Your task to perform on an android device: Open display settings Image 0: 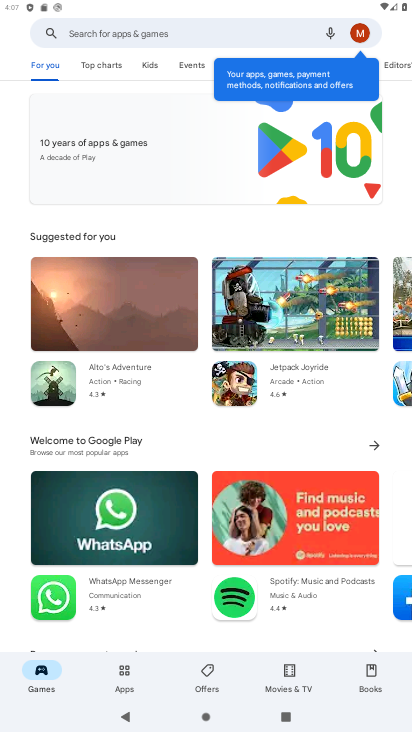
Step 0: press home button
Your task to perform on an android device: Open display settings Image 1: 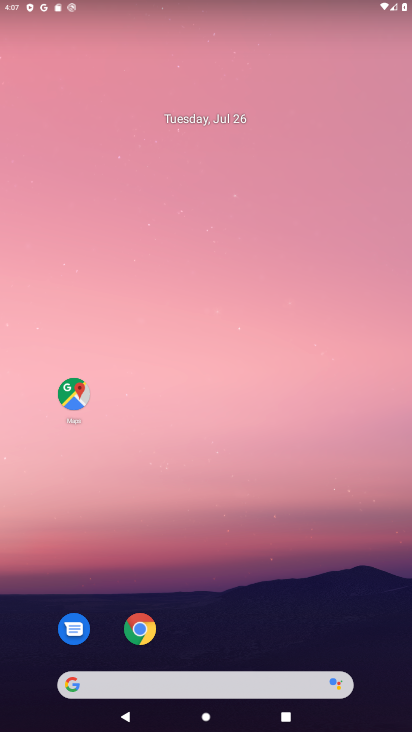
Step 1: click (254, 402)
Your task to perform on an android device: Open display settings Image 2: 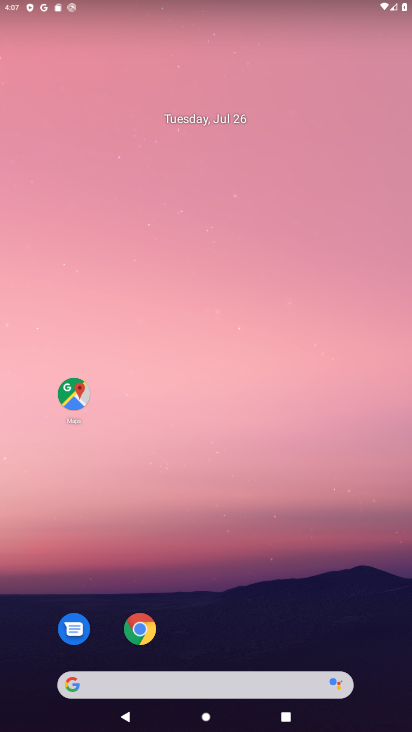
Step 2: drag from (234, 624) to (234, 249)
Your task to perform on an android device: Open display settings Image 3: 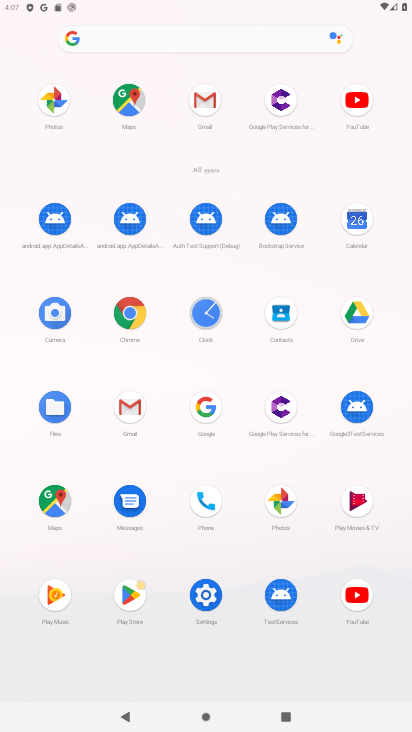
Step 3: click (216, 598)
Your task to perform on an android device: Open display settings Image 4: 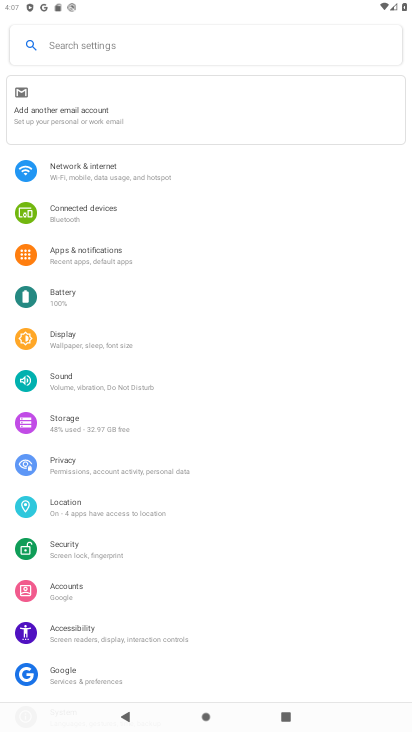
Step 4: click (74, 346)
Your task to perform on an android device: Open display settings Image 5: 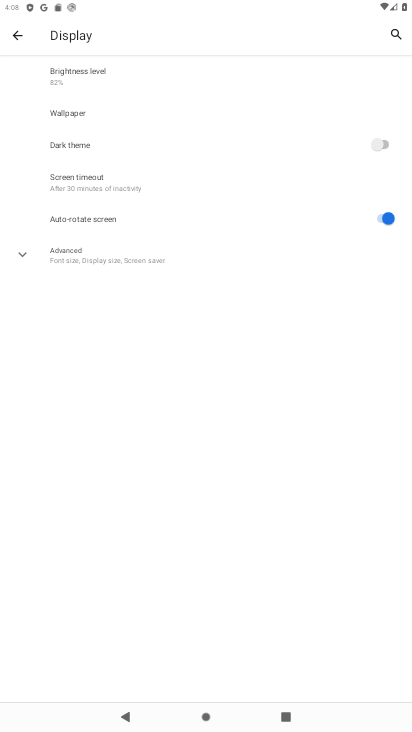
Step 5: task complete